Your task to perform on an android device: see tabs open on other devices in the chrome app Image 0: 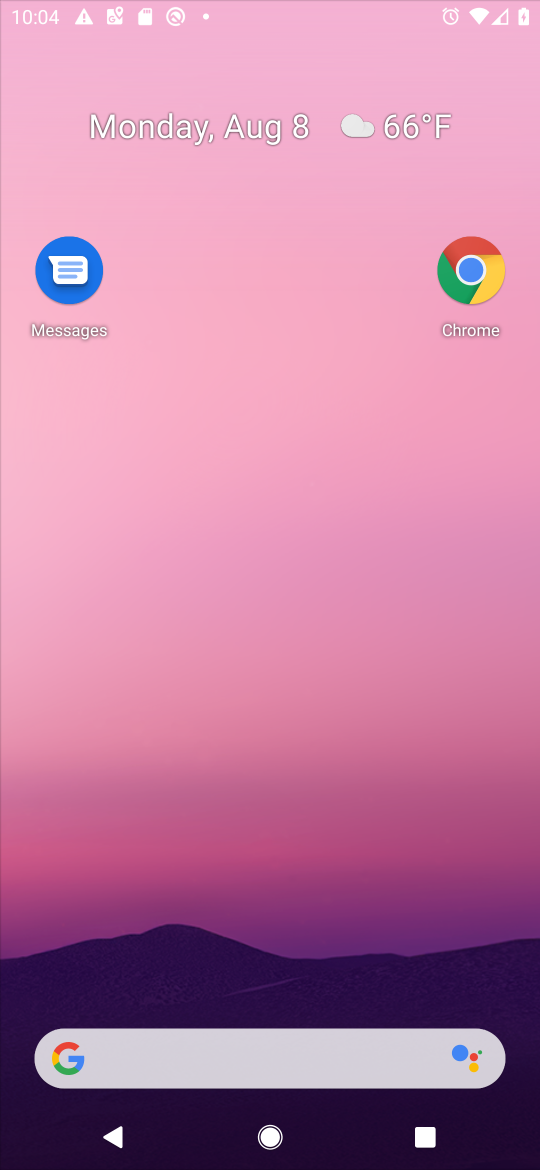
Step 0: drag from (268, 940) to (289, 417)
Your task to perform on an android device: see tabs open on other devices in the chrome app Image 1: 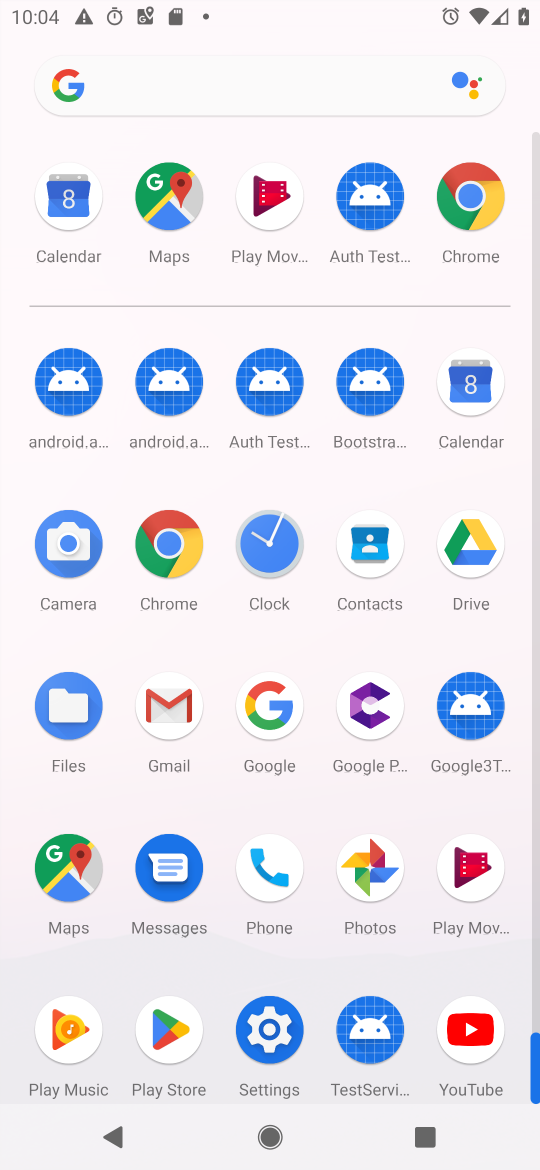
Step 1: click (159, 539)
Your task to perform on an android device: see tabs open on other devices in the chrome app Image 2: 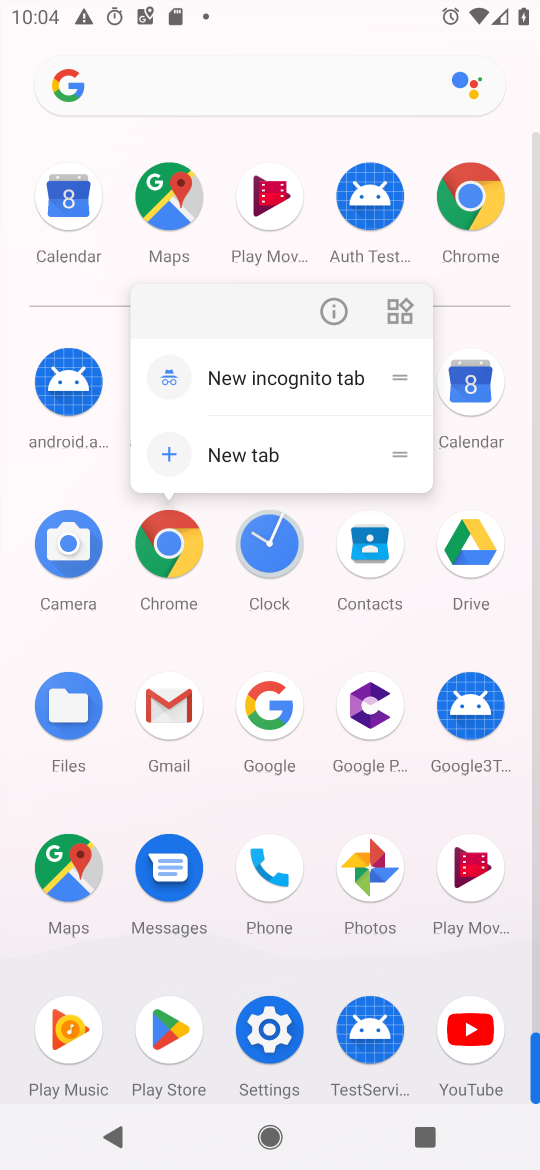
Step 2: click (335, 309)
Your task to perform on an android device: see tabs open on other devices in the chrome app Image 3: 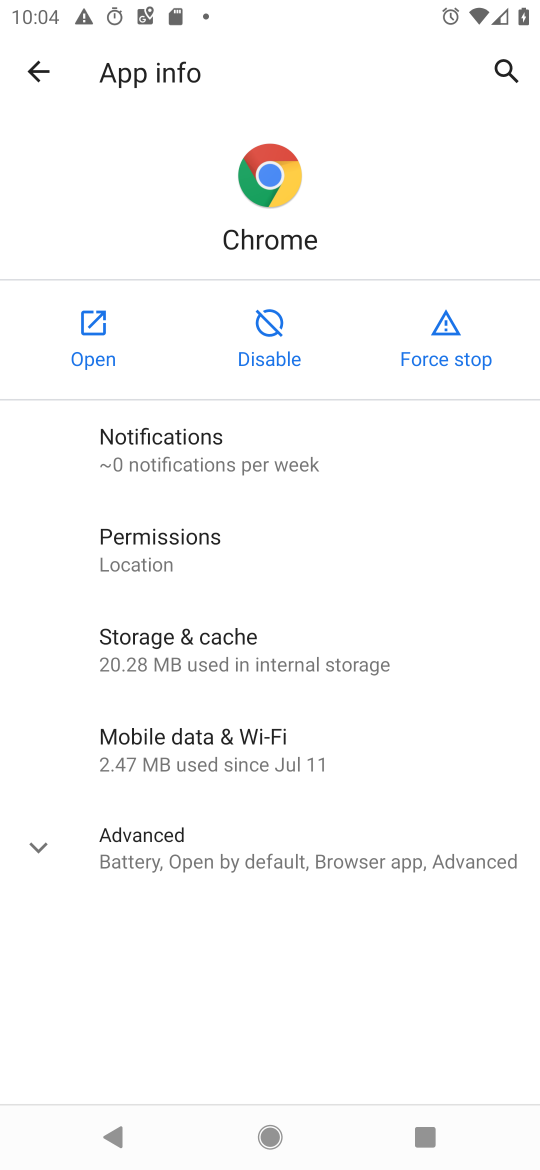
Step 3: click (98, 341)
Your task to perform on an android device: see tabs open on other devices in the chrome app Image 4: 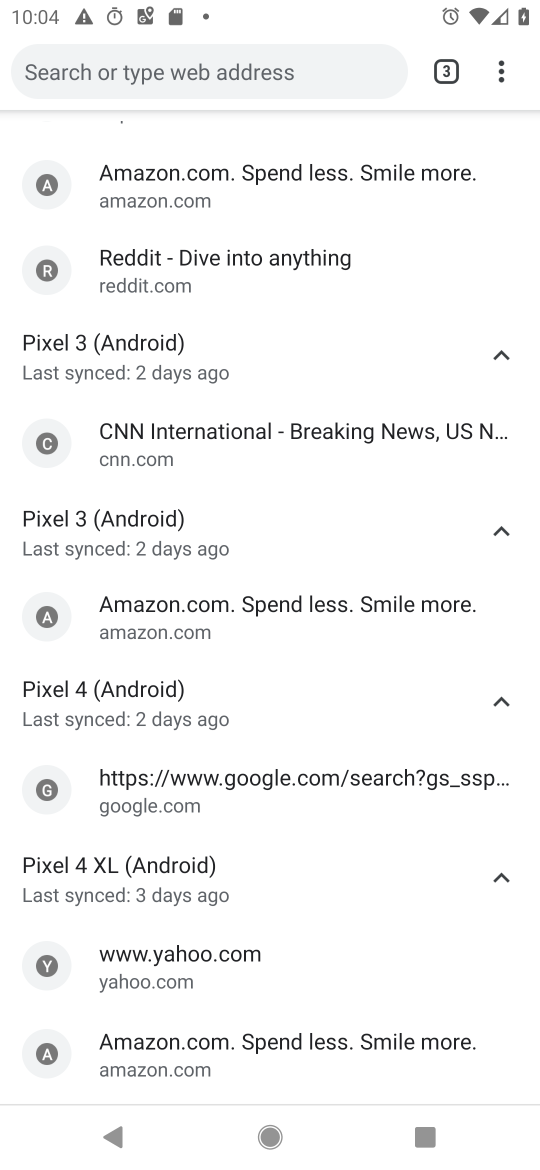
Step 4: task complete